Your task to perform on an android device: Go to battery settings Image 0: 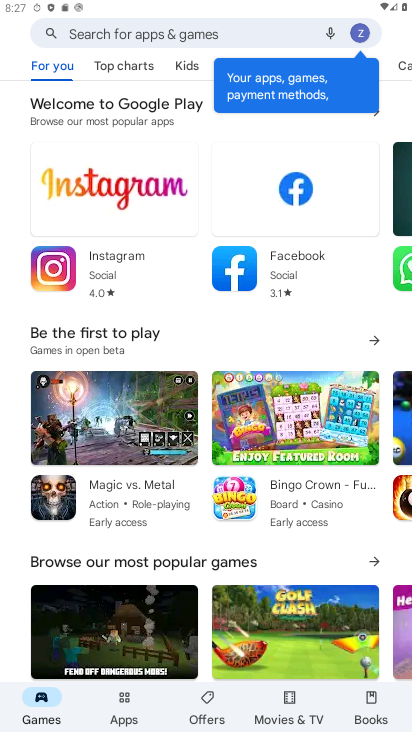
Step 0: press home button
Your task to perform on an android device: Go to battery settings Image 1: 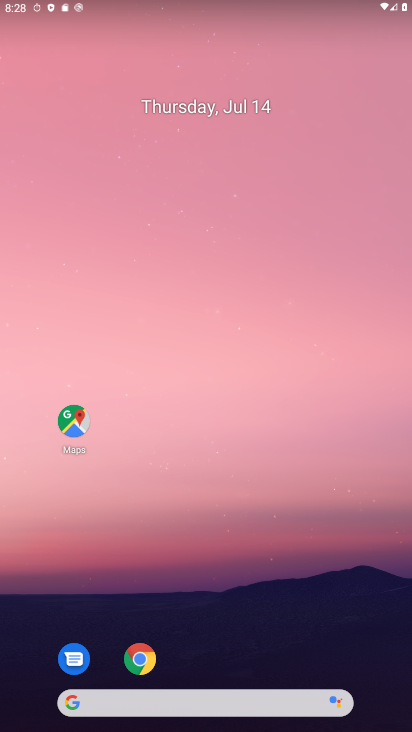
Step 1: drag from (224, 688) to (126, 133)
Your task to perform on an android device: Go to battery settings Image 2: 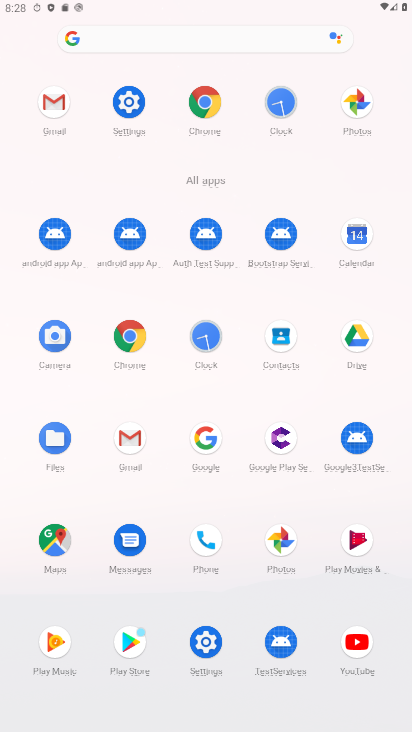
Step 2: click (118, 103)
Your task to perform on an android device: Go to battery settings Image 3: 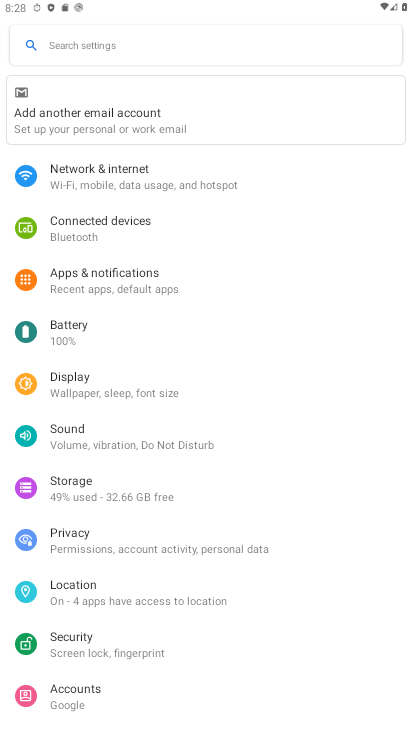
Step 3: click (91, 332)
Your task to perform on an android device: Go to battery settings Image 4: 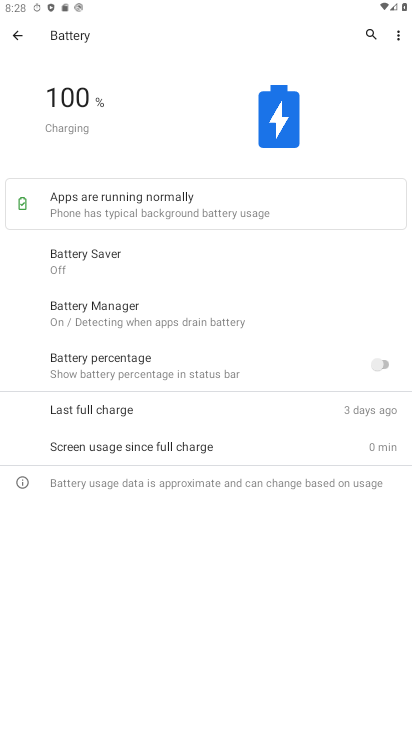
Step 4: task complete